Your task to perform on an android device: Open network settings Image 0: 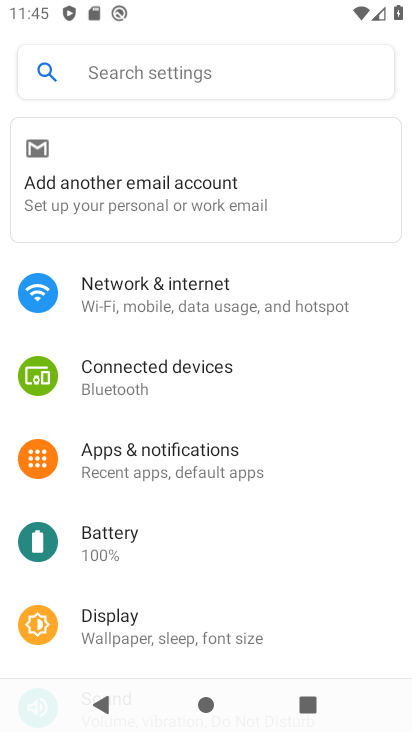
Step 0: click (171, 304)
Your task to perform on an android device: Open network settings Image 1: 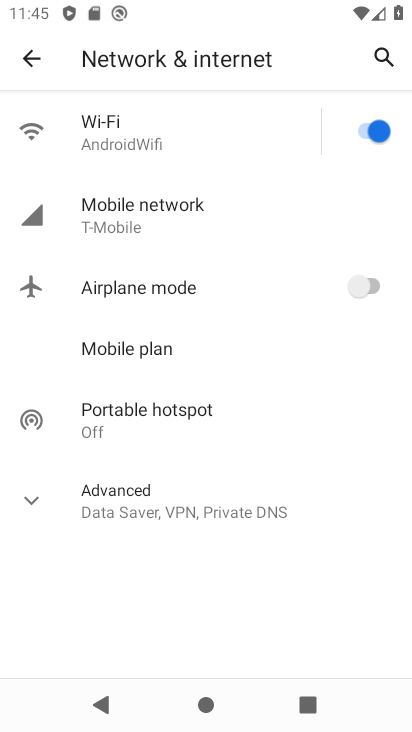
Step 1: click (205, 221)
Your task to perform on an android device: Open network settings Image 2: 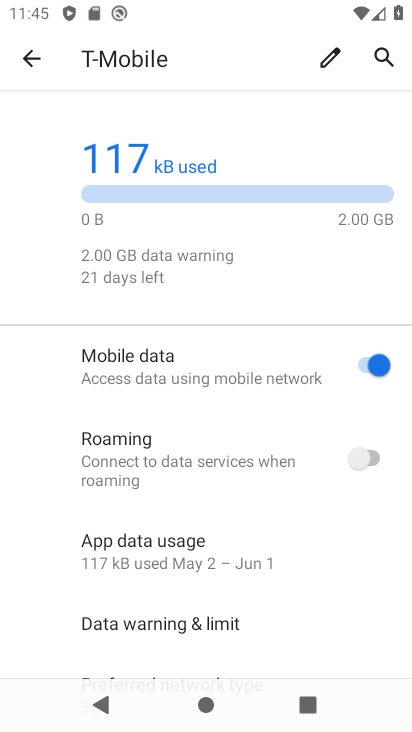
Step 2: task complete